Your task to perform on an android device: Open Google Maps and go to "Timeline" Image 0: 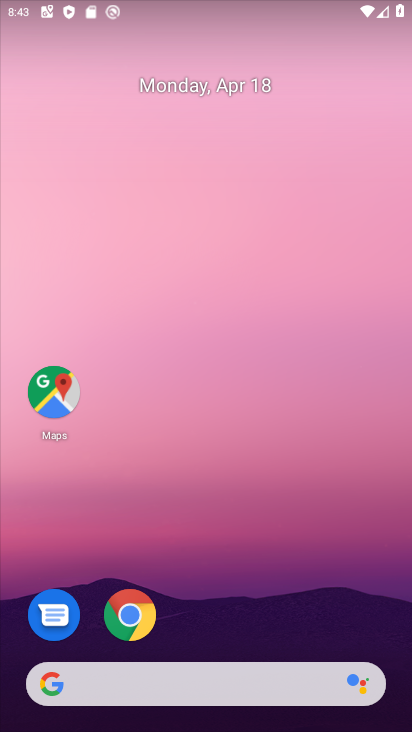
Step 0: drag from (361, 575) to (342, 117)
Your task to perform on an android device: Open Google Maps and go to "Timeline" Image 1: 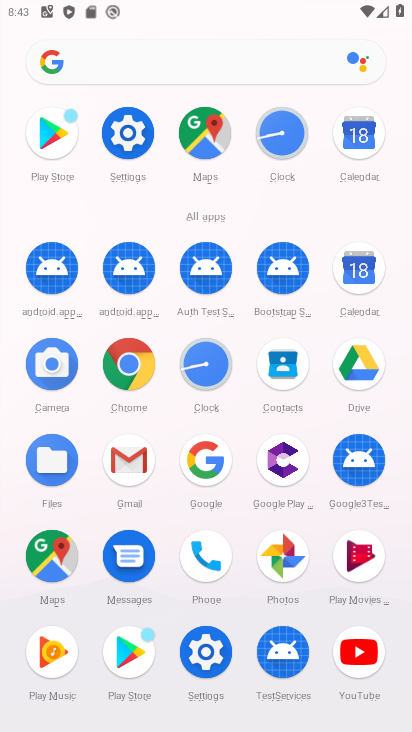
Step 1: click (46, 568)
Your task to perform on an android device: Open Google Maps and go to "Timeline" Image 2: 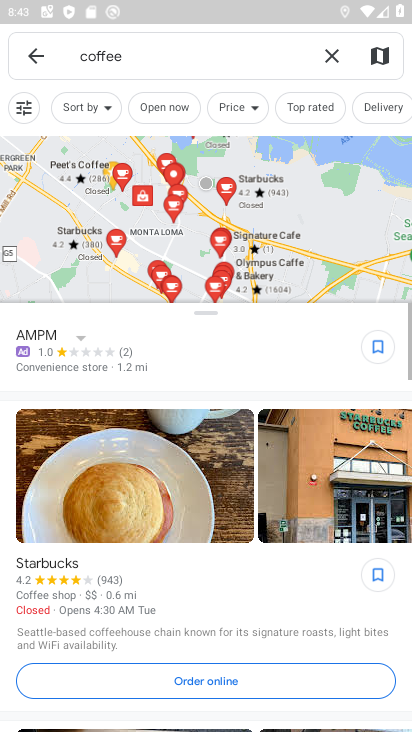
Step 2: click (27, 54)
Your task to perform on an android device: Open Google Maps and go to "Timeline" Image 3: 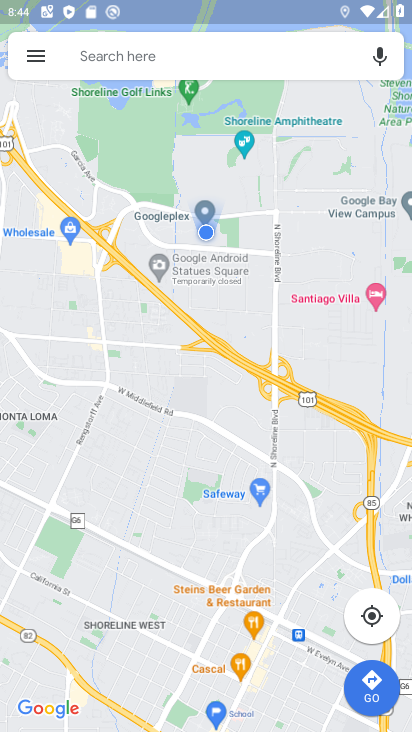
Step 3: click (32, 65)
Your task to perform on an android device: Open Google Maps and go to "Timeline" Image 4: 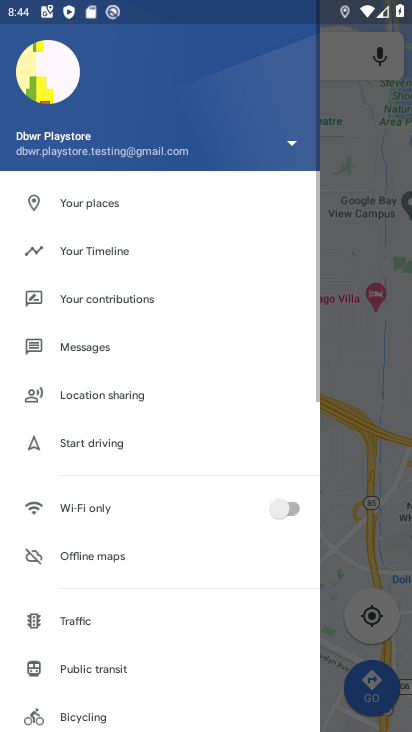
Step 4: click (83, 261)
Your task to perform on an android device: Open Google Maps and go to "Timeline" Image 5: 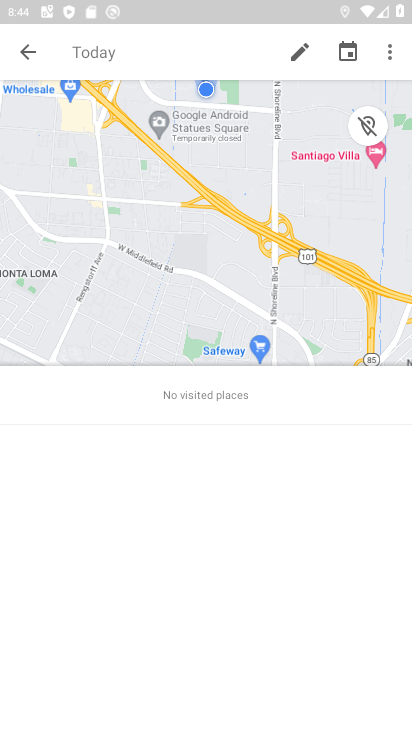
Step 5: task complete